Your task to perform on an android device: When is my next meeting? Image 0: 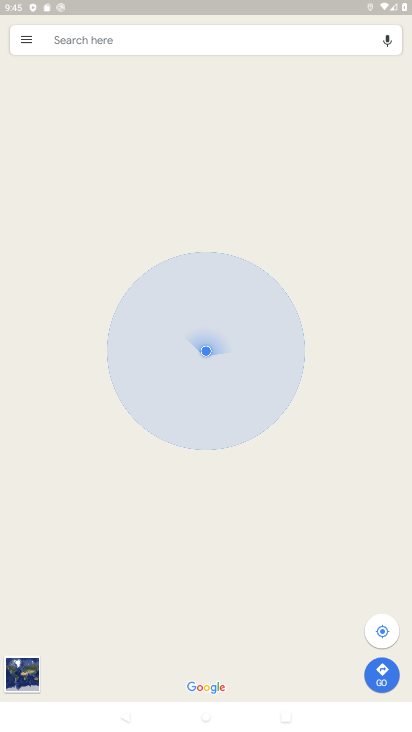
Step 0: press home button
Your task to perform on an android device: When is my next meeting? Image 1: 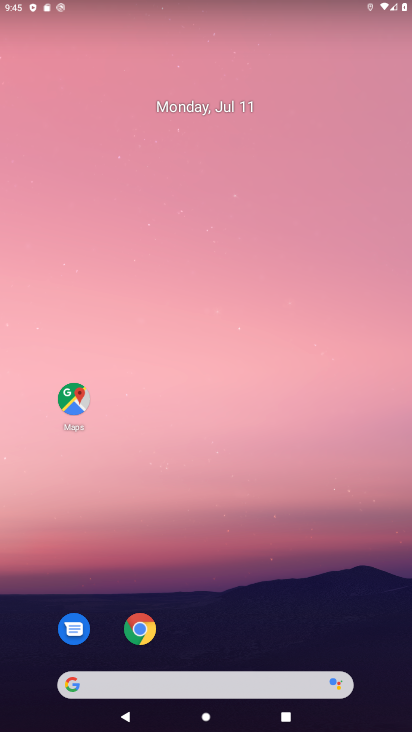
Step 1: drag from (229, 613) to (185, 24)
Your task to perform on an android device: When is my next meeting? Image 2: 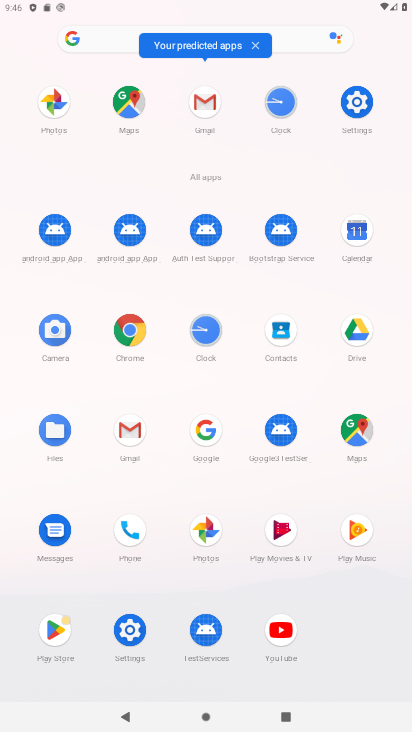
Step 2: click (353, 241)
Your task to perform on an android device: When is my next meeting? Image 3: 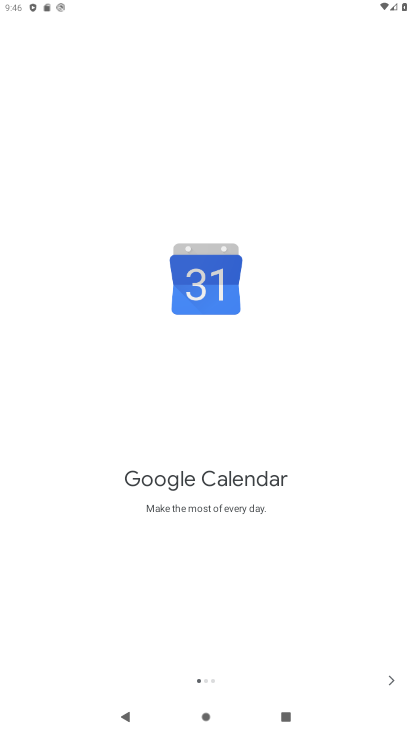
Step 3: click (400, 679)
Your task to perform on an android device: When is my next meeting? Image 4: 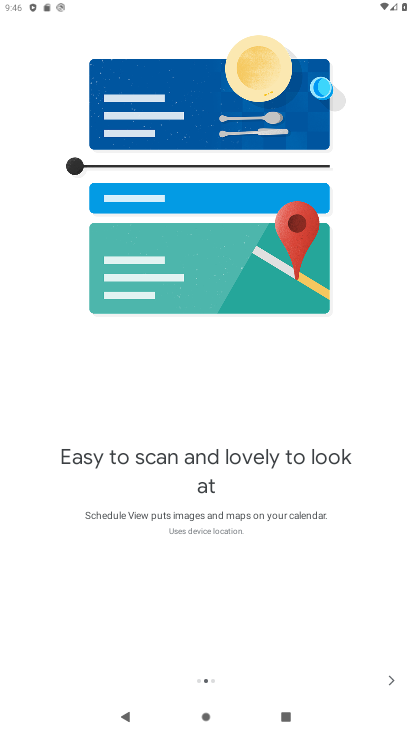
Step 4: click (400, 679)
Your task to perform on an android device: When is my next meeting? Image 5: 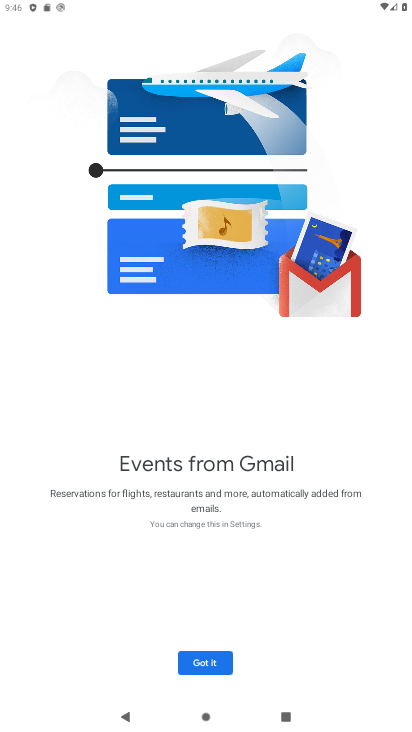
Step 5: click (215, 665)
Your task to perform on an android device: When is my next meeting? Image 6: 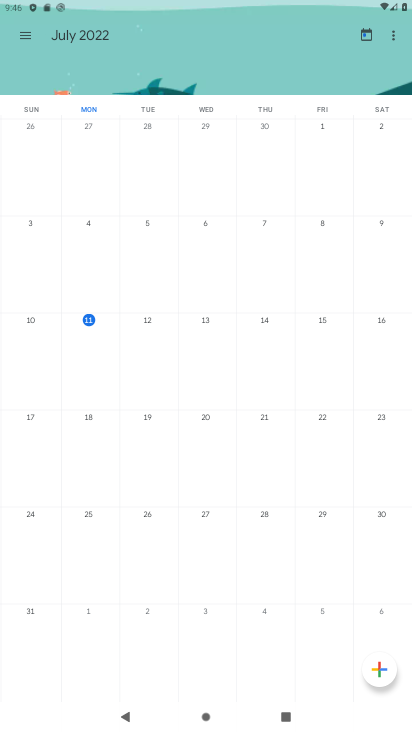
Step 6: click (36, 47)
Your task to perform on an android device: When is my next meeting? Image 7: 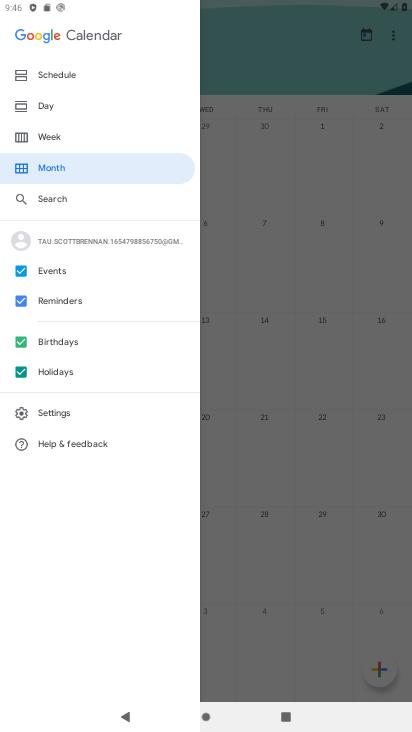
Step 7: click (84, 171)
Your task to perform on an android device: When is my next meeting? Image 8: 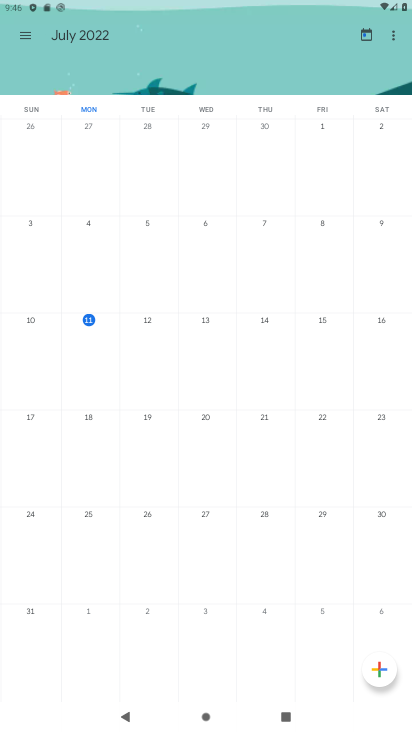
Step 8: task complete